Your task to perform on an android device: set an alarm Image 0: 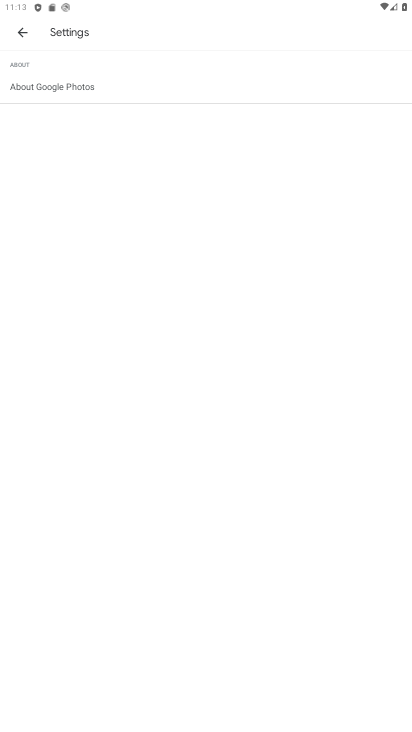
Step 0: press home button
Your task to perform on an android device: set an alarm Image 1: 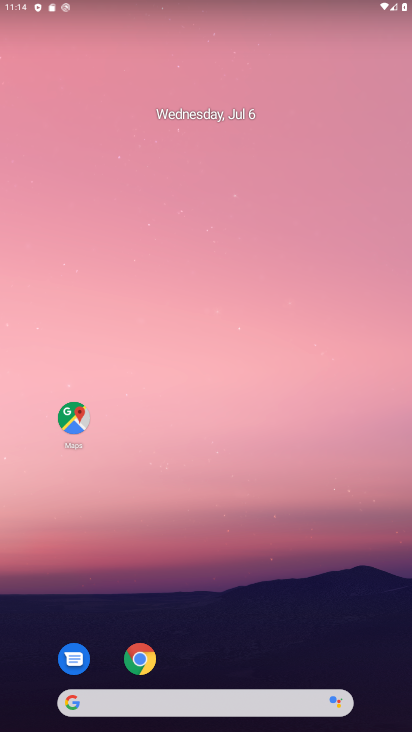
Step 1: drag from (202, 674) to (404, 35)
Your task to perform on an android device: set an alarm Image 2: 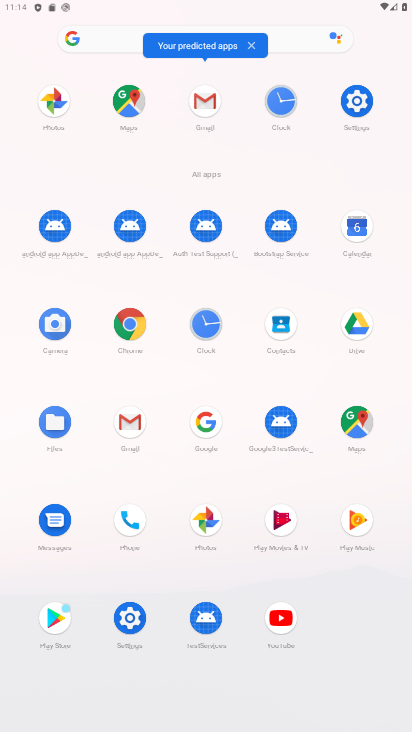
Step 2: click (269, 109)
Your task to perform on an android device: set an alarm Image 3: 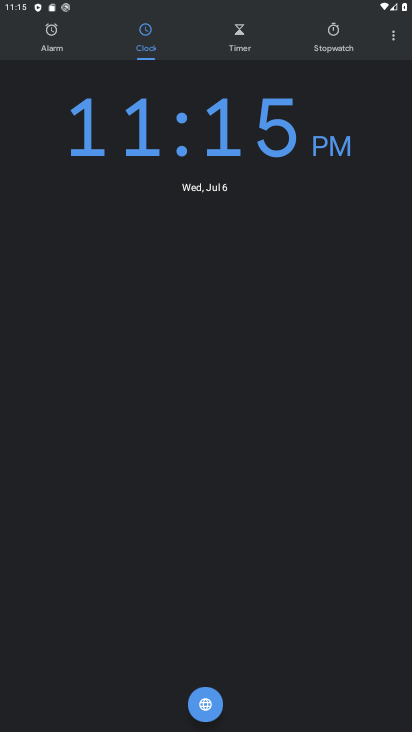
Step 3: click (55, 50)
Your task to perform on an android device: set an alarm Image 4: 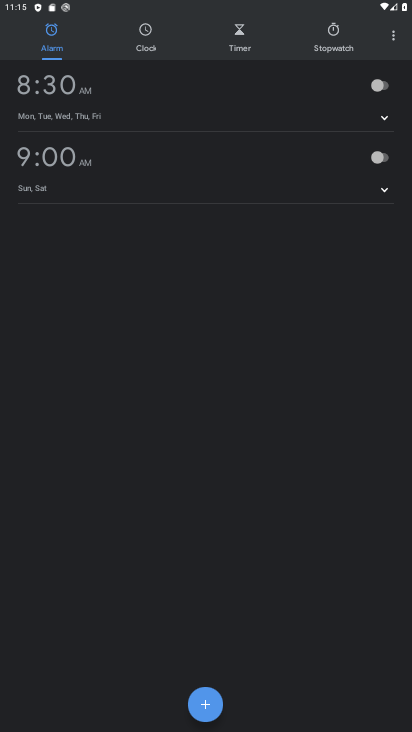
Step 4: click (383, 94)
Your task to perform on an android device: set an alarm Image 5: 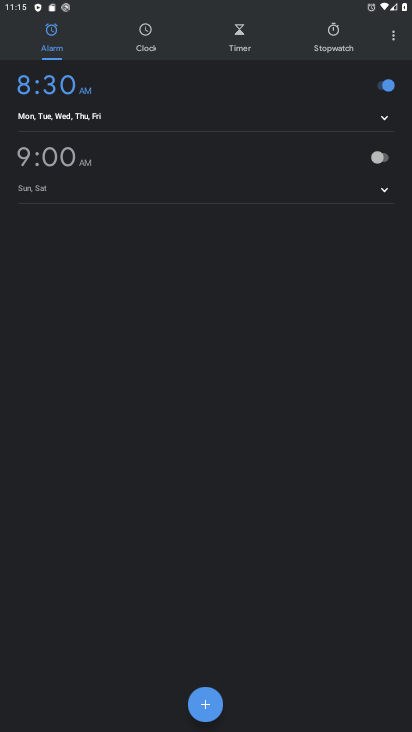
Step 5: task complete